Your task to perform on an android device: Show the shopping cart on walmart.com. Add logitech g pro to the cart on walmart.com, then select checkout. Image 0: 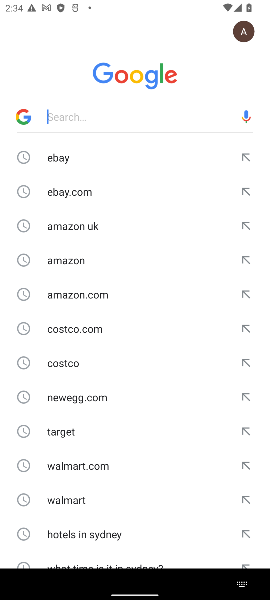
Step 0: click (83, 462)
Your task to perform on an android device: Show the shopping cart on walmart.com. Add logitech g pro to the cart on walmart.com, then select checkout. Image 1: 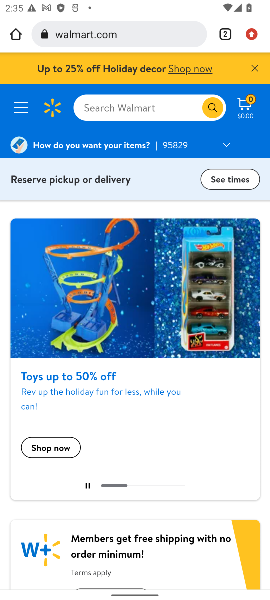
Step 1: click (166, 109)
Your task to perform on an android device: Show the shopping cart on walmart.com. Add logitech g pro to the cart on walmart.com, then select checkout. Image 2: 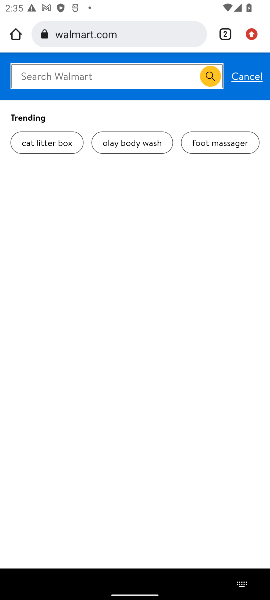
Step 2: type "logitech g pro"
Your task to perform on an android device: Show the shopping cart on walmart.com. Add logitech g pro to the cart on walmart.com, then select checkout. Image 3: 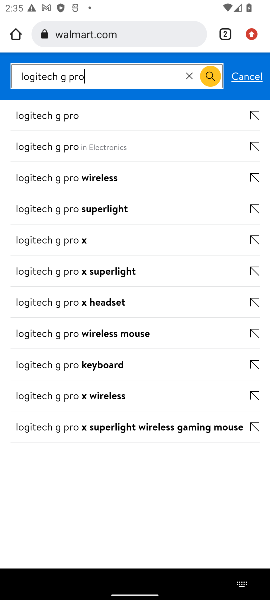
Step 3: click (50, 121)
Your task to perform on an android device: Show the shopping cart on walmart.com. Add logitech g pro to the cart on walmart.com, then select checkout. Image 4: 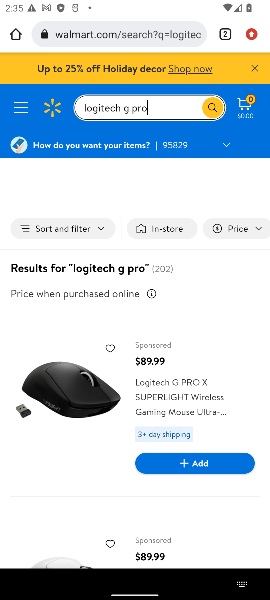
Step 4: click (195, 466)
Your task to perform on an android device: Show the shopping cart on walmart.com. Add logitech g pro to the cart on walmart.com, then select checkout. Image 5: 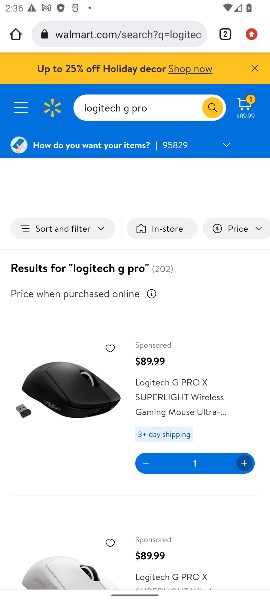
Step 5: click (245, 108)
Your task to perform on an android device: Show the shopping cart on walmart.com. Add logitech g pro to the cart on walmart.com, then select checkout. Image 6: 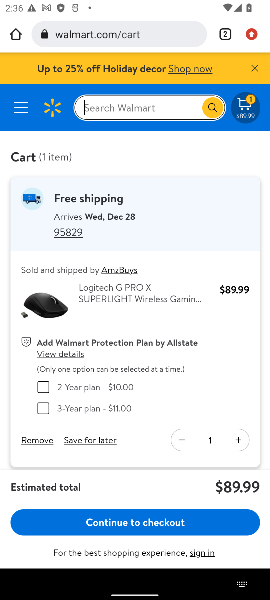
Step 6: click (136, 519)
Your task to perform on an android device: Show the shopping cart on walmart.com. Add logitech g pro to the cart on walmart.com, then select checkout. Image 7: 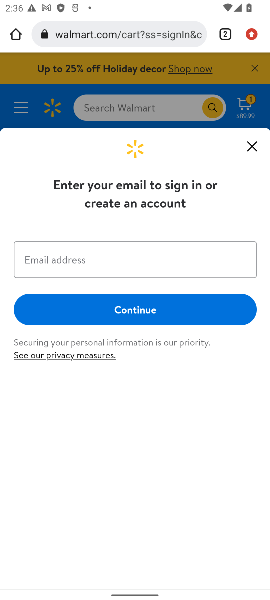
Step 7: click (251, 147)
Your task to perform on an android device: Show the shopping cart on walmart.com. Add logitech g pro to the cart on walmart.com, then select checkout. Image 8: 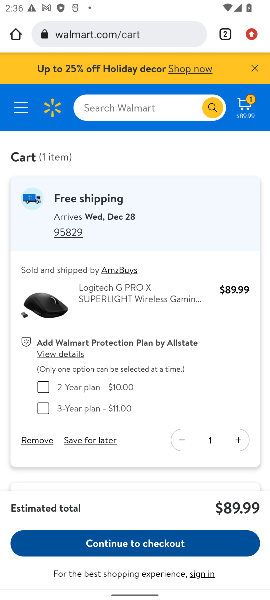
Step 8: click (165, 540)
Your task to perform on an android device: Show the shopping cart on walmart.com. Add logitech g pro to the cart on walmart.com, then select checkout. Image 9: 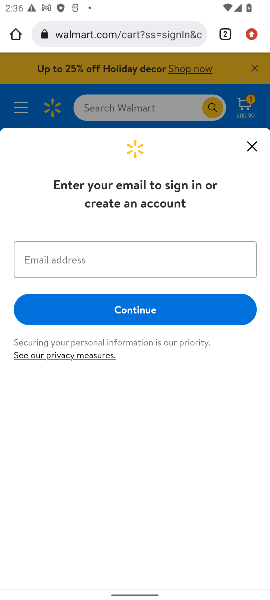
Step 9: click (256, 142)
Your task to perform on an android device: Show the shopping cart on walmart.com. Add logitech g pro to the cart on walmart.com, then select checkout. Image 10: 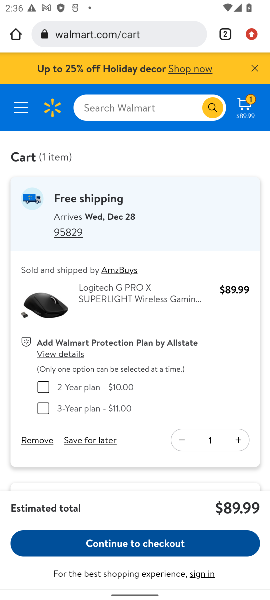
Step 10: task complete